Your task to perform on an android device: uninstall "Facebook Messenger" Image 0: 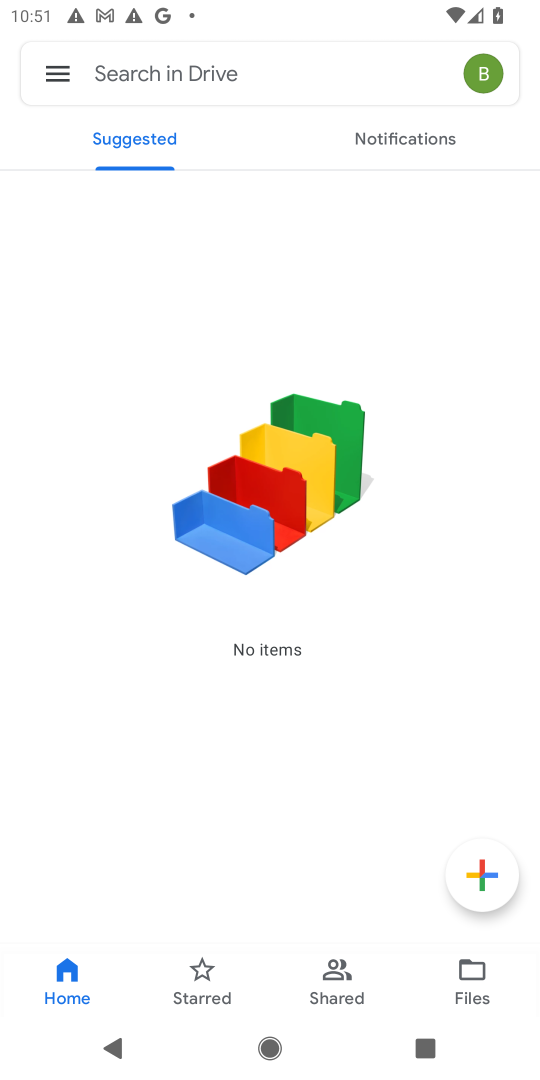
Step 0: press home button
Your task to perform on an android device: uninstall "Facebook Messenger" Image 1: 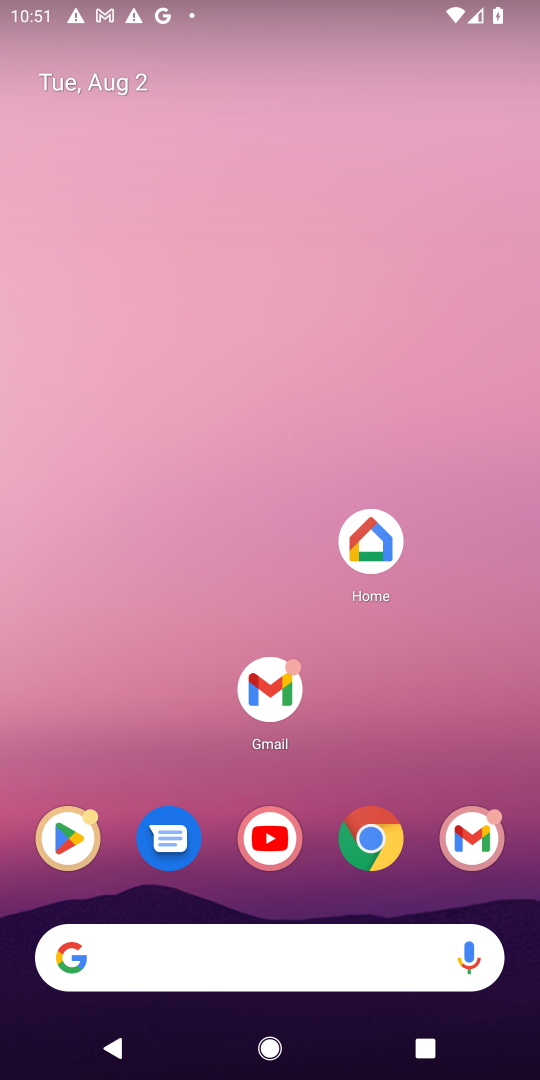
Step 1: drag from (141, 681) to (113, 89)
Your task to perform on an android device: uninstall "Facebook Messenger" Image 2: 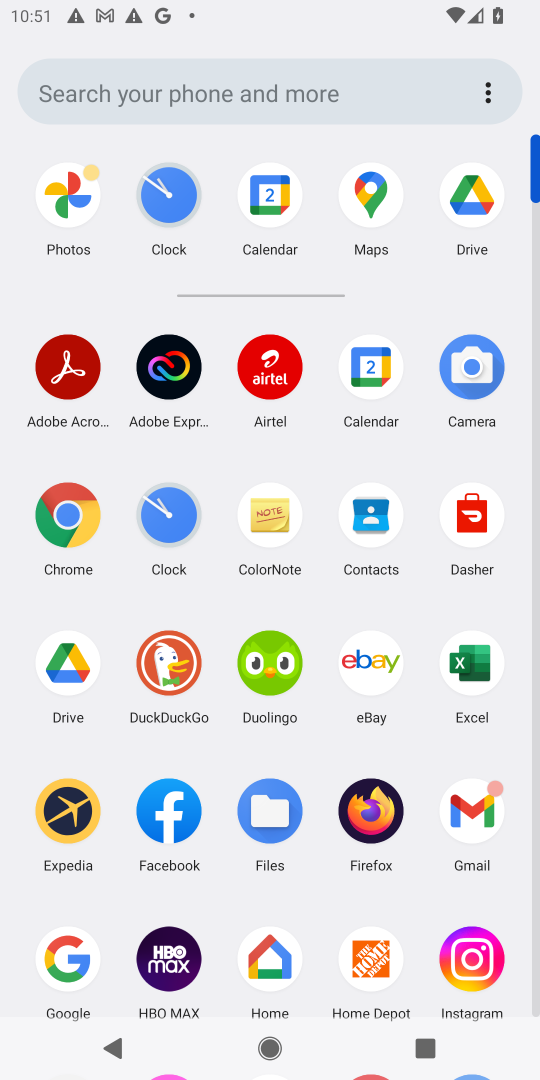
Step 2: drag from (304, 897) to (313, 607)
Your task to perform on an android device: uninstall "Facebook Messenger" Image 3: 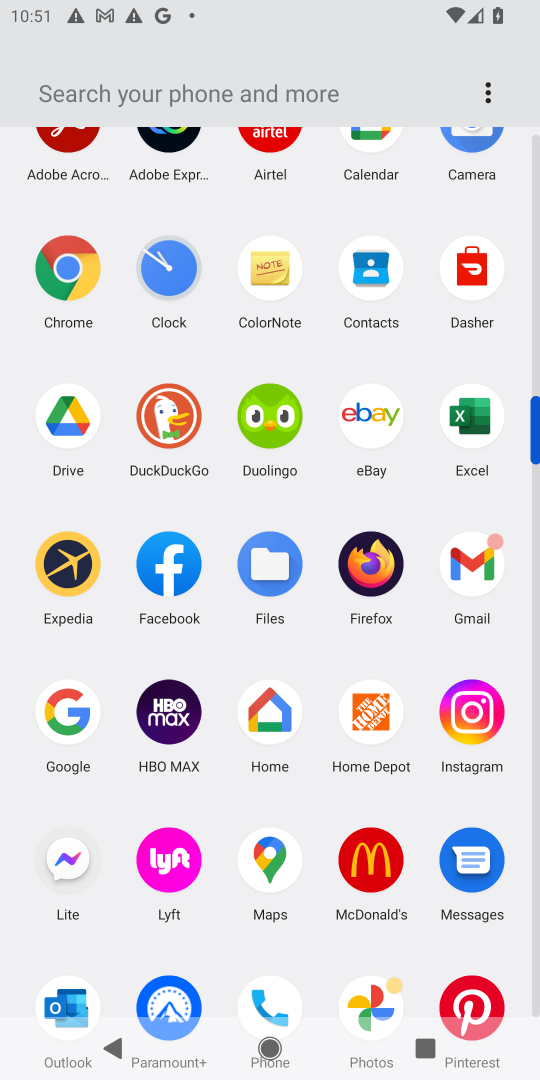
Step 3: drag from (409, 752) to (414, 605)
Your task to perform on an android device: uninstall "Facebook Messenger" Image 4: 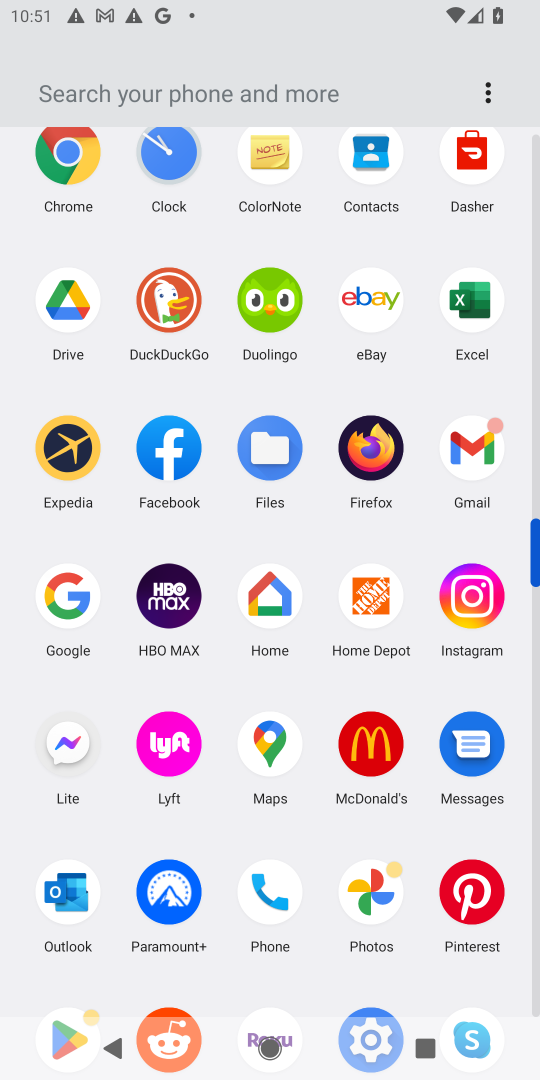
Step 4: drag from (309, 945) to (307, 668)
Your task to perform on an android device: uninstall "Facebook Messenger" Image 5: 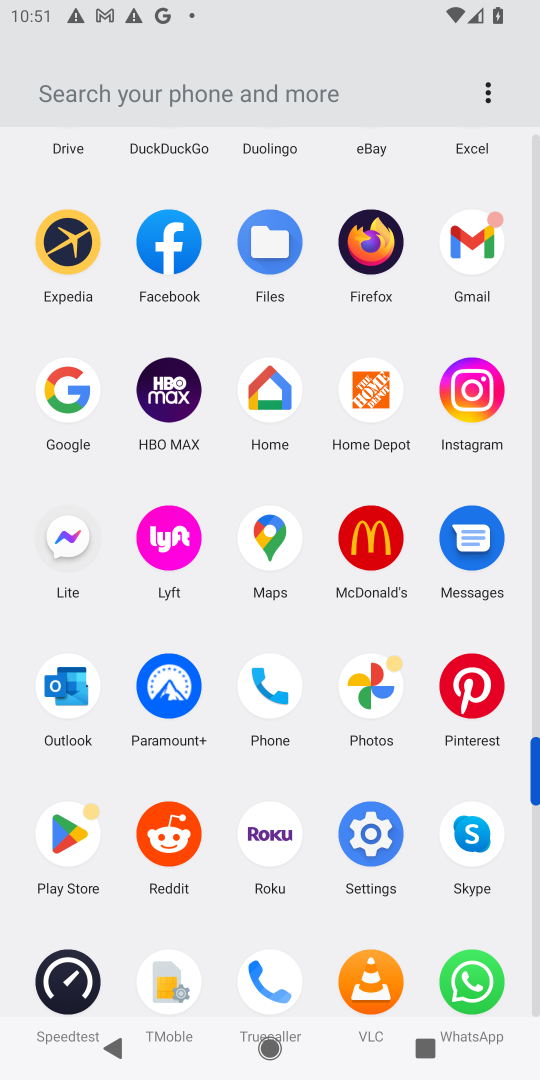
Step 5: click (55, 848)
Your task to perform on an android device: uninstall "Facebook Messenger" Image 6: 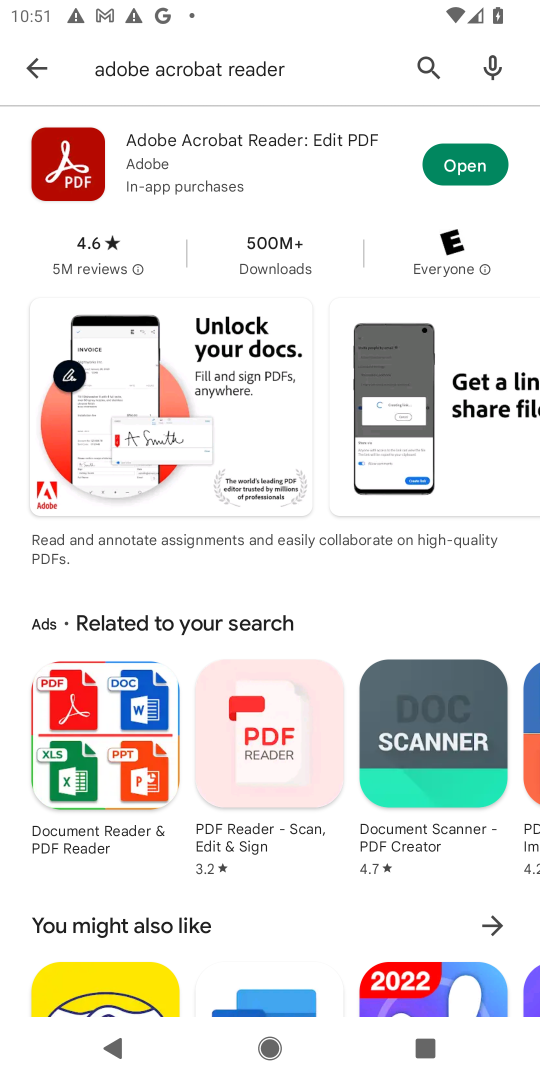
Step 6: click (426, 74)
Your task to perform on an android device: uninstall "Facebook Messenger" Image 7: 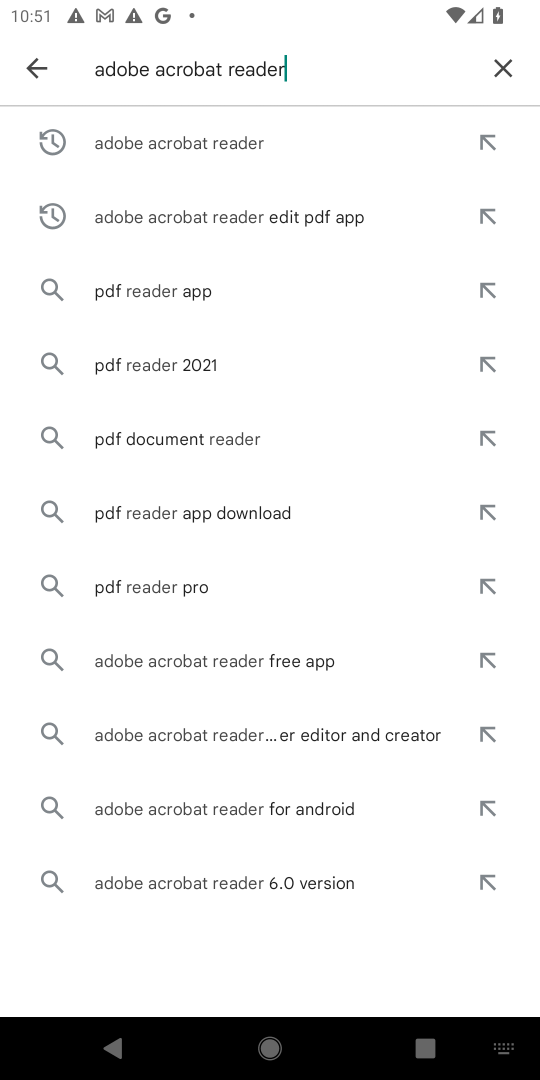
Step 7: click (495, 69)
Your task to perform on an android device: uninstall "Facebook Messenger" Image 8: 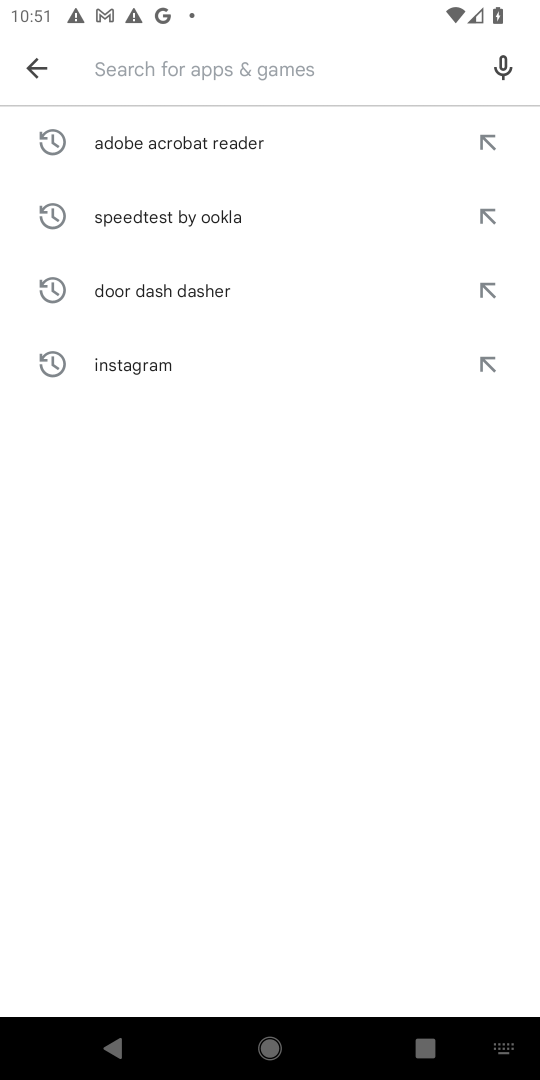
Step 8: click (286, 93)
Your task to perform on an android device: uninstall "Facebook Messenger" Image 9: 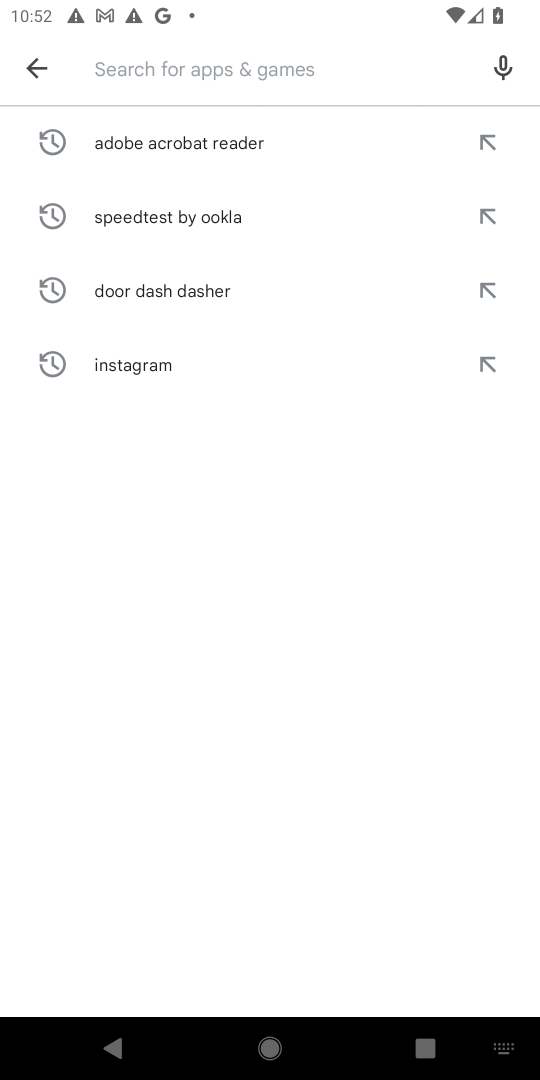
Step 9: type "facebook messenger"
Your task to perform on an android device: uninstall "Facebook Messenger" Image 10: 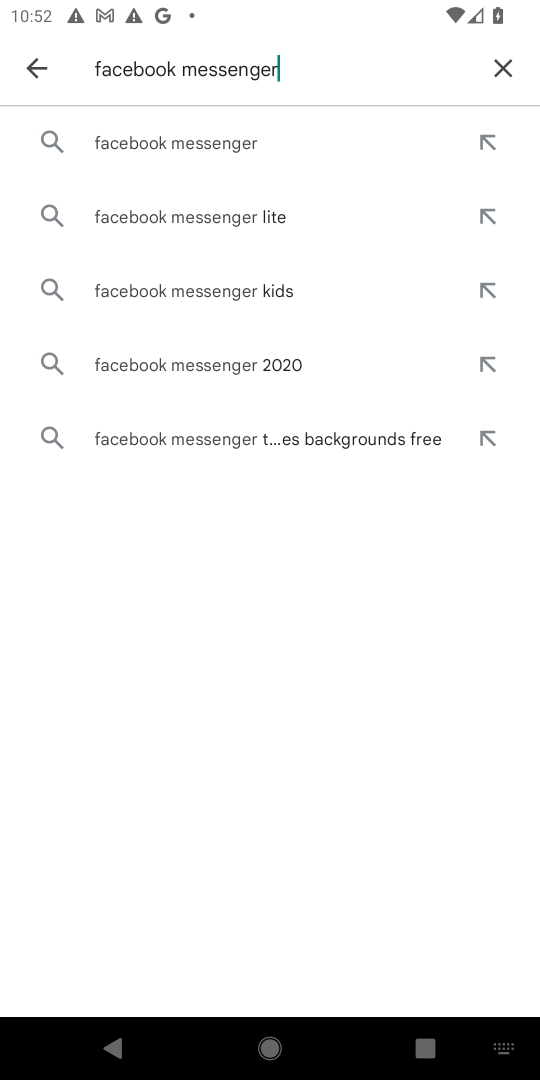
Step 10: click (291, 135)
Your task to perform on an android device: uninstall "Facebook Messenger" Image 11: 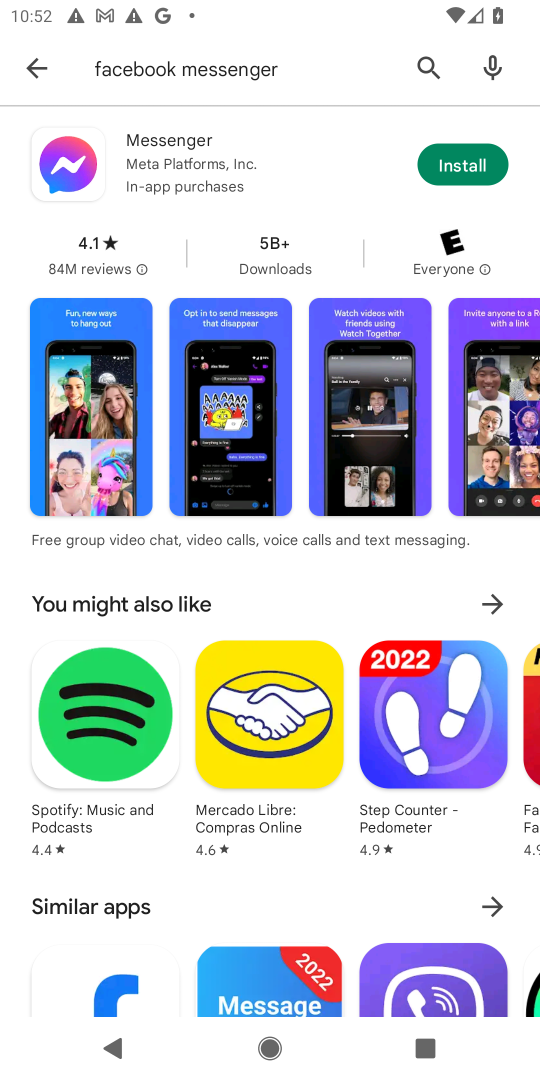
Step 11: task complete